Your task to perform on an android device: Search for sushi restaurants on Maps Image 0: 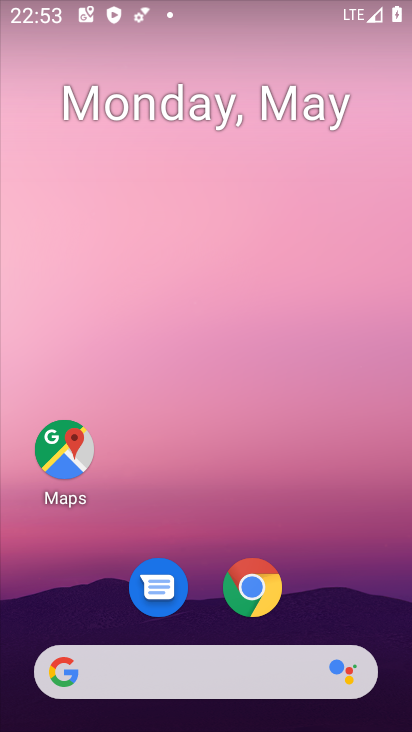
Step 0: click (66, 469)
Your task to perform on an android device: Search for sushi restaurants on Maps Image 1: 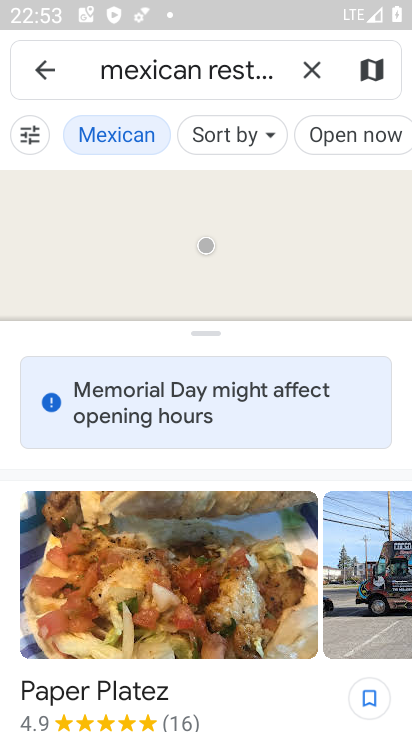
Step 1: click (309, 70)
Your task to perform on an android device: Search for sushi restaurants on Maps Image 2: 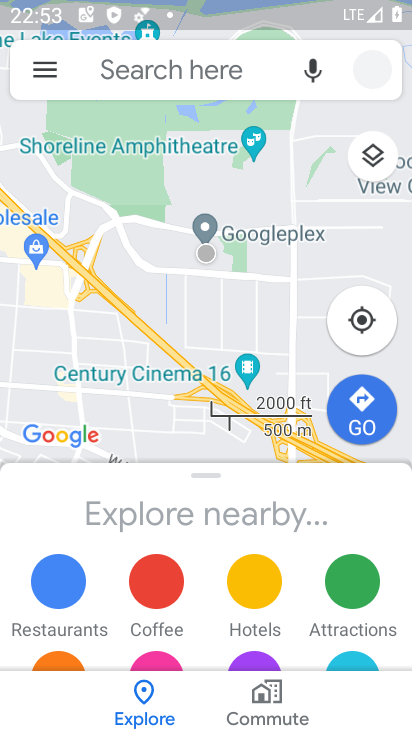
Step 2: click (172, 61)
Your task to perform on an android device: Search for sushi restaurants on Maps Image 3: 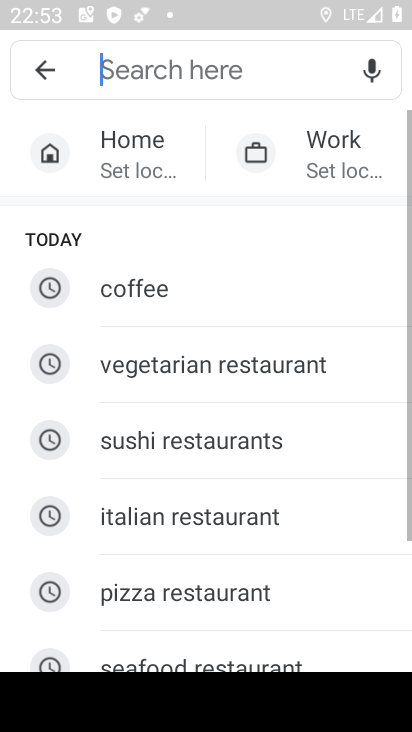
Step 3: click (180, 437)
Your task to perform on an android device: Search for sushi restaurants on Maps Image 4: 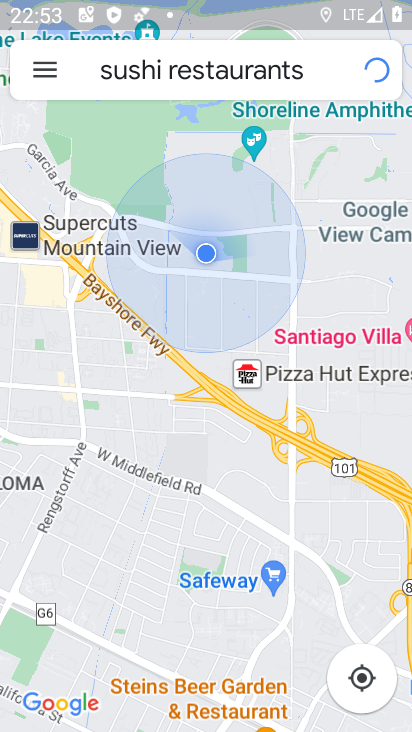
Step 4: task complete